Your task to perform on an android device: all mails in gmail Image 0: 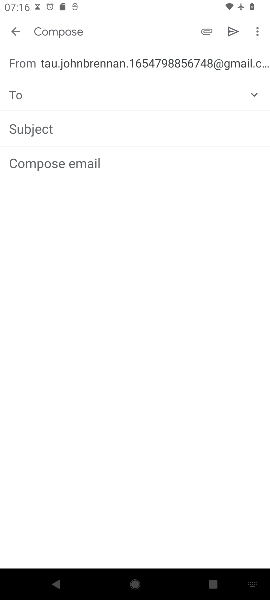
Step 0: press home button
Your task to perform on an android device: all mails in gmail Image 1: 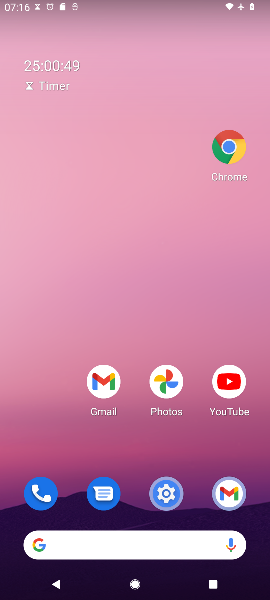
Step 1: click (104, 381)
Your task to perform on an android device: all mails in gmail Image 2: 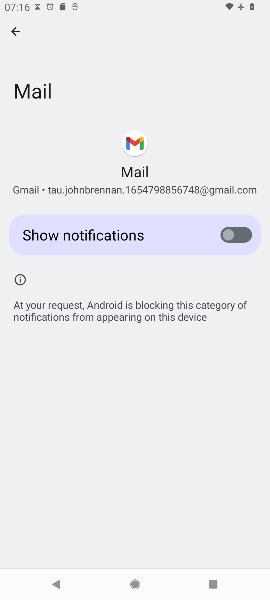
Step 2: press back button
Your task to perform on an android device: all mails in gmail Image 3: 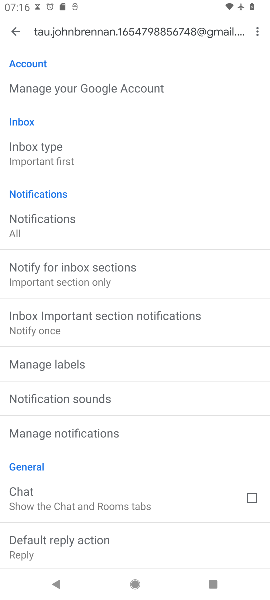
Step 3: press back button
Your task to perform on an android device: all mails in gmail Image 4: 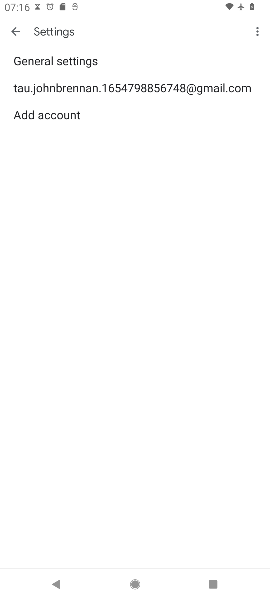
Step 4: press back button
Your task to perform on an android device: all mails in gmail Image 5: 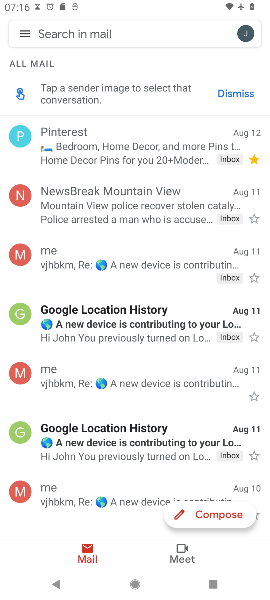
Step 5: click (23, 31)
Your task to perform on an android device: all mails in gmail Image 6: 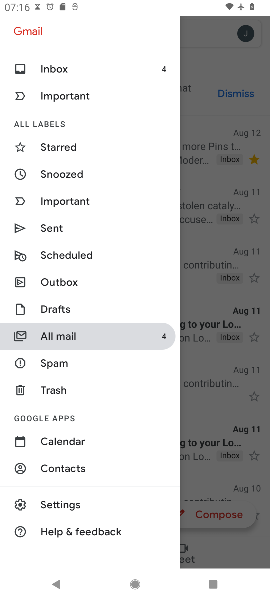
Step 6: click (50, 331)
Your task to perform on an android device: all mails in gmail Image 7: 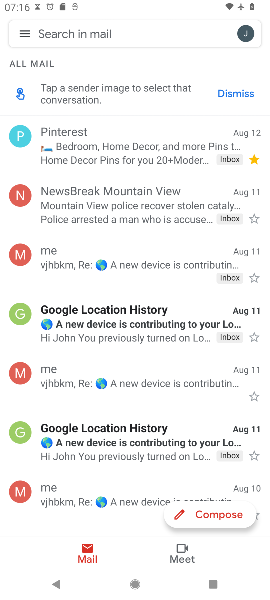
Step 7: task complete